Your task to perform on an android device: Open Google Chrome and open the bookmarks view Image 0: 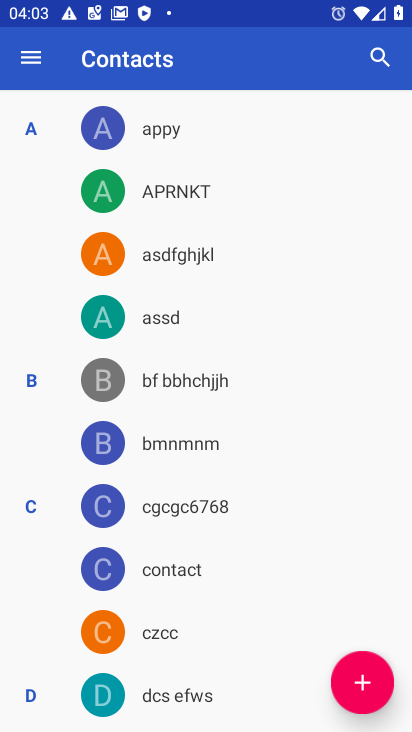
Step 0: press home button
Your task to perform on an android device: Open Google Chrome and open the bookmarks view Image 1: 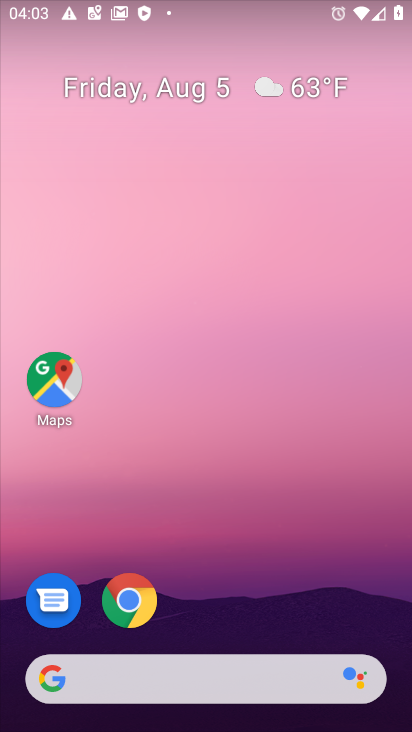
Step 1: drag from (236, 692) to (246, 7)
Your task to perform on an android device: Open Google Chrome and open the bookmarks view Image 2: 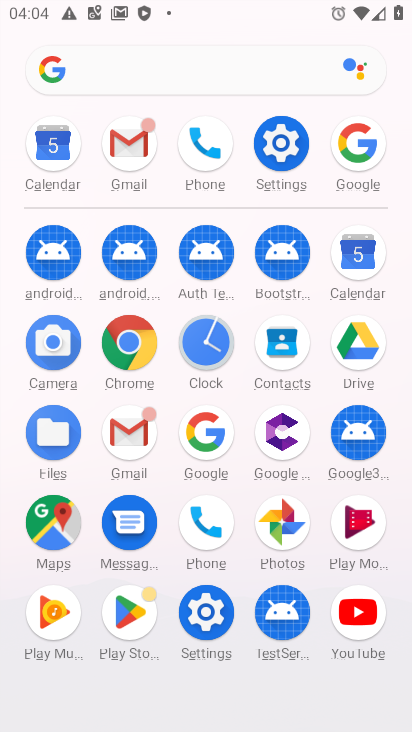
Step 2: click (128, 344)
Your task to perform on an android device: Open Google Chrome and open the bookmarks view Image 3: 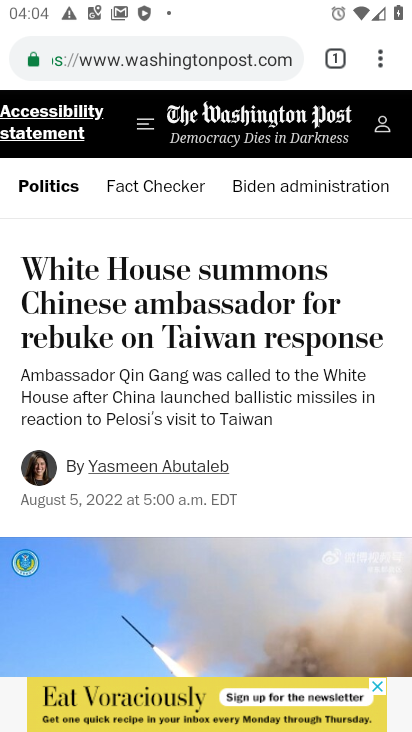
Step 3: click (379, 60)
Your task to perform on an android device: Open Google Chrome and open the bookmarks view Image 4: 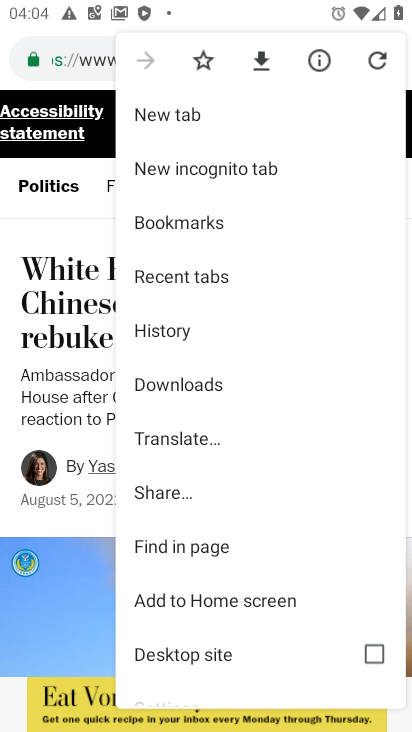
Step 4: click (201, 226)
Your task to perform on an android device: Open Google Chrome and open the bookmarks view Image 5: 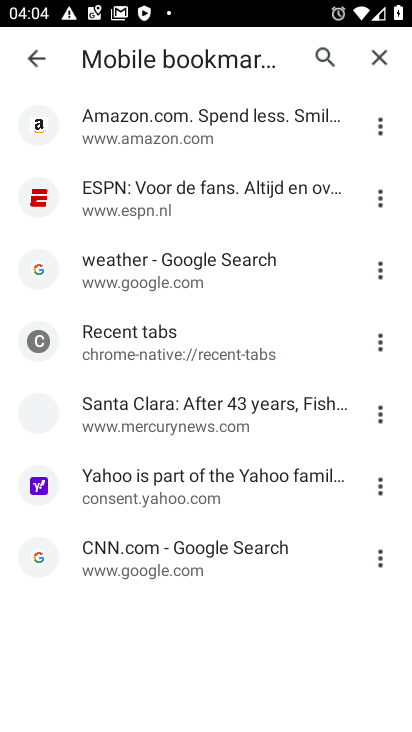
Step 5: task complete